Your task to perform on an android device: Clear all items from cart on newegg.com. Image 0: 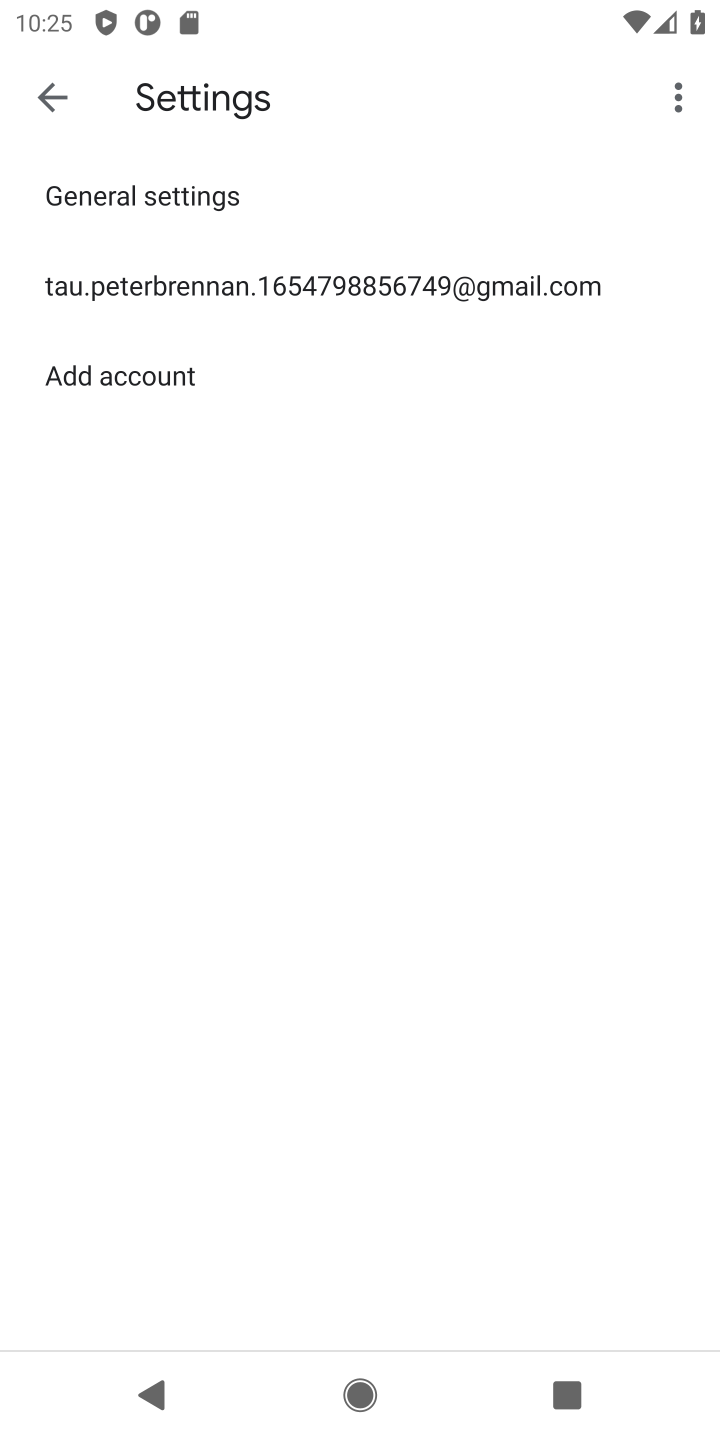
Step 0: press home button
Your task to perform on an android device: Clear all items from cart on newegg.com. Image 1: 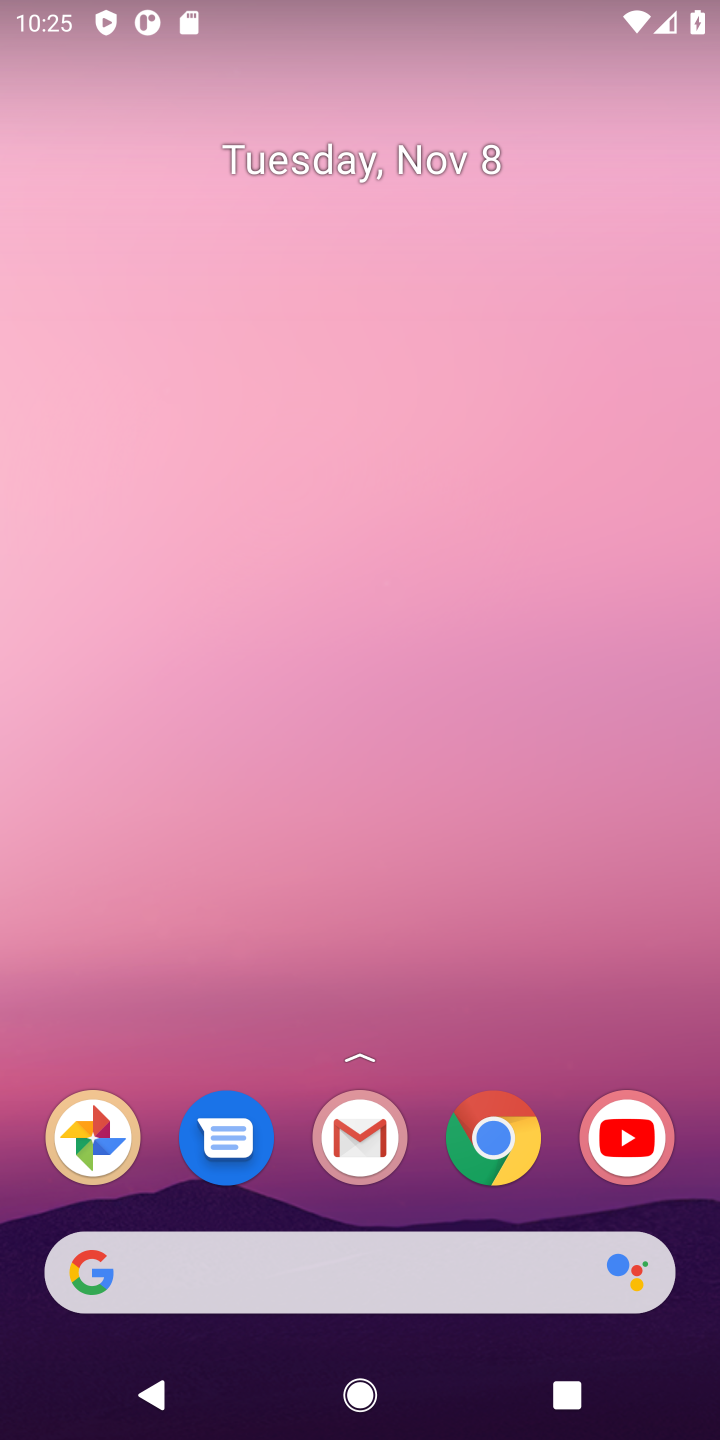
Step 1: click (499, 1123)
Your task to perform on an android device: Clear all items from cart on newegg.com. Image 2: 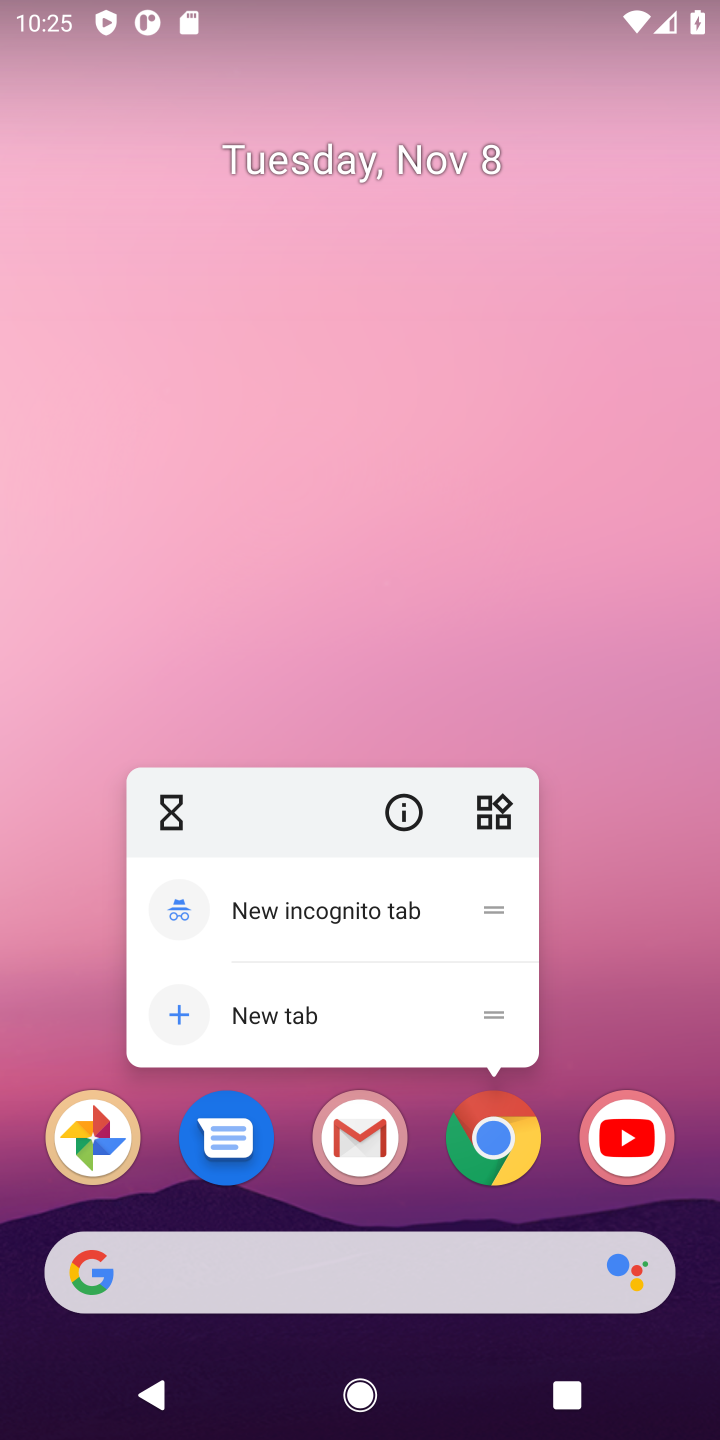
Step 2: click (499, 1143)
Your task to perform on an android device: Clear all items from cart on newegg.com. Image 3: 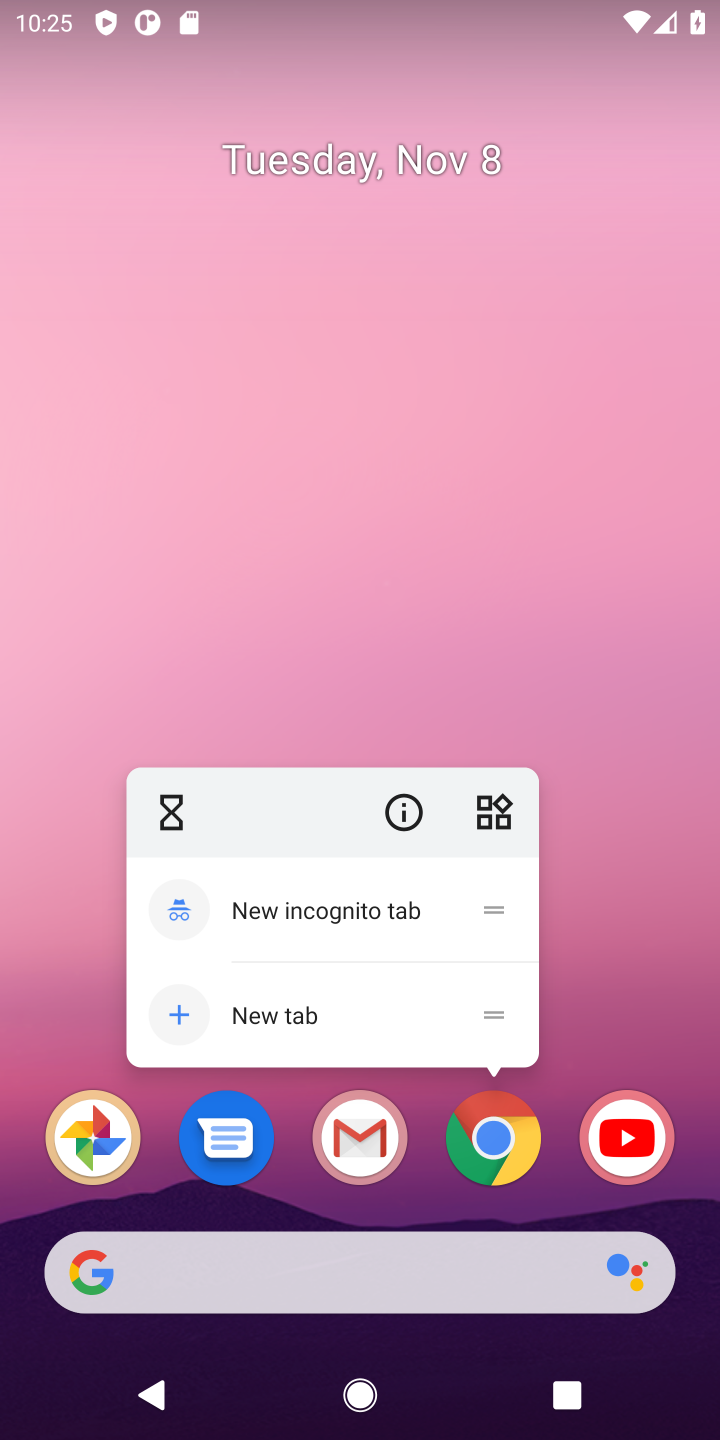
Step 3: click (499, 1145)
Your task to perform on an android device: Clear all items from cart on newegg.com. Image 4: 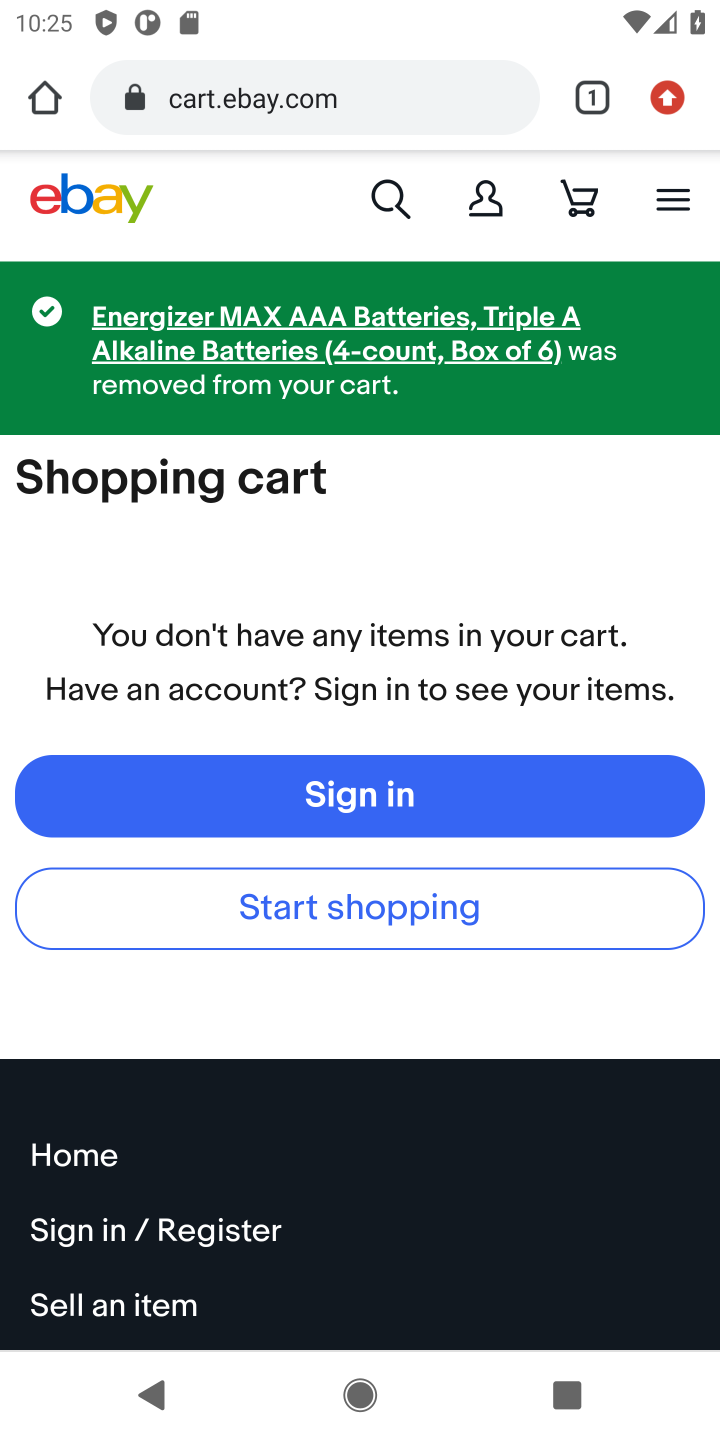
Step 4: click (358, 92)
Your task to perform on an android device: Clear all items from cart on newegg.com. Image 5: 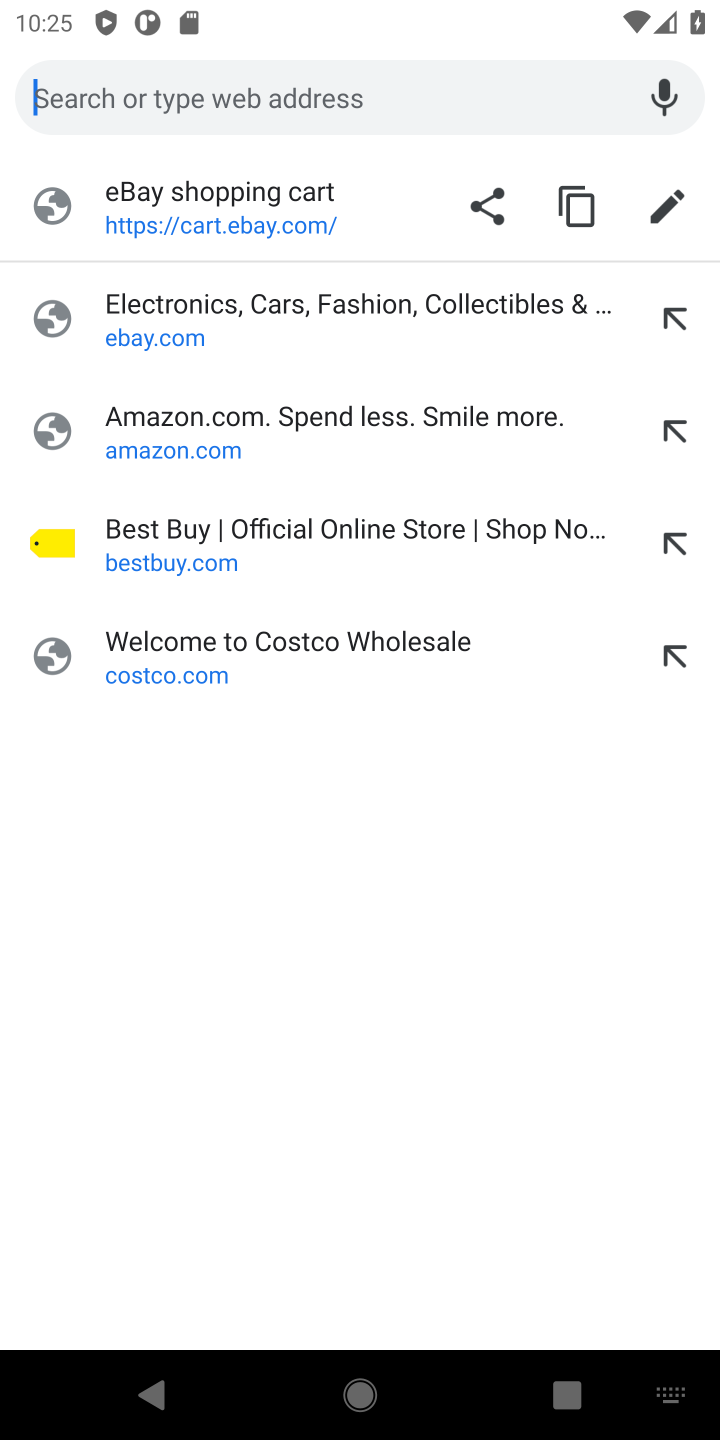
Step 5: type " newegg.com"
Your task to perform on an android device: Clear all items from cart on newegg.com. Image 6: 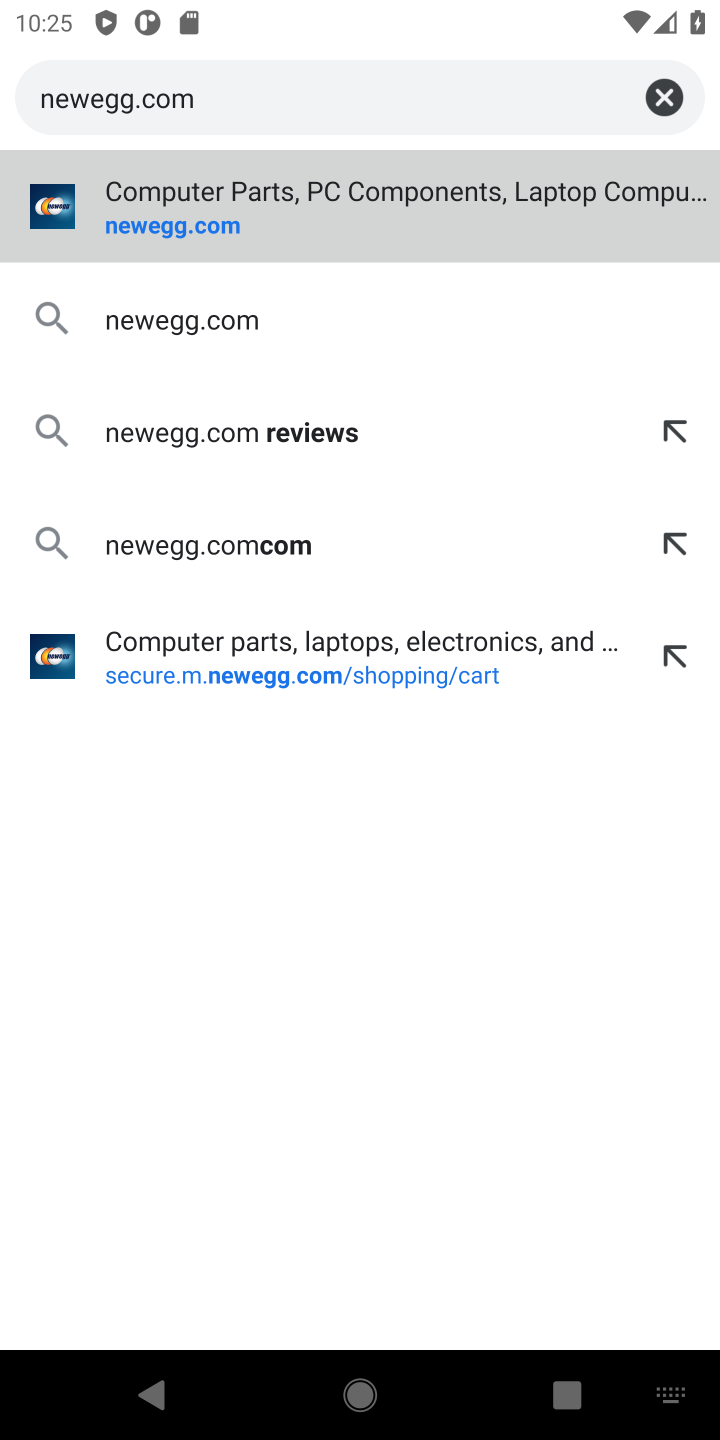
Step 6: press enter
Your task to perform on an android device: Clear all items from cart on newegg.com. Image 7: 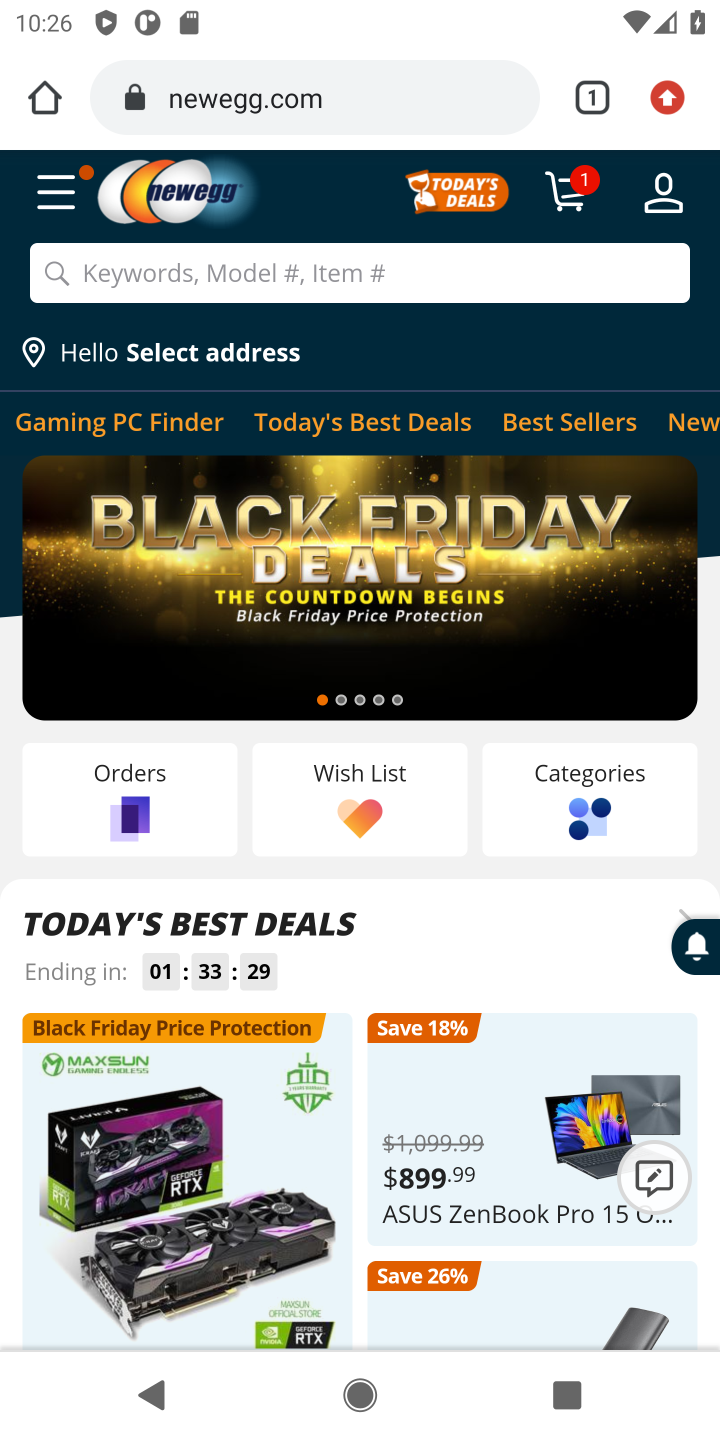
Step 7: click (121, 274)
Your task to perform on an android device: Clear all items from cart on newegg.com. Image 8: 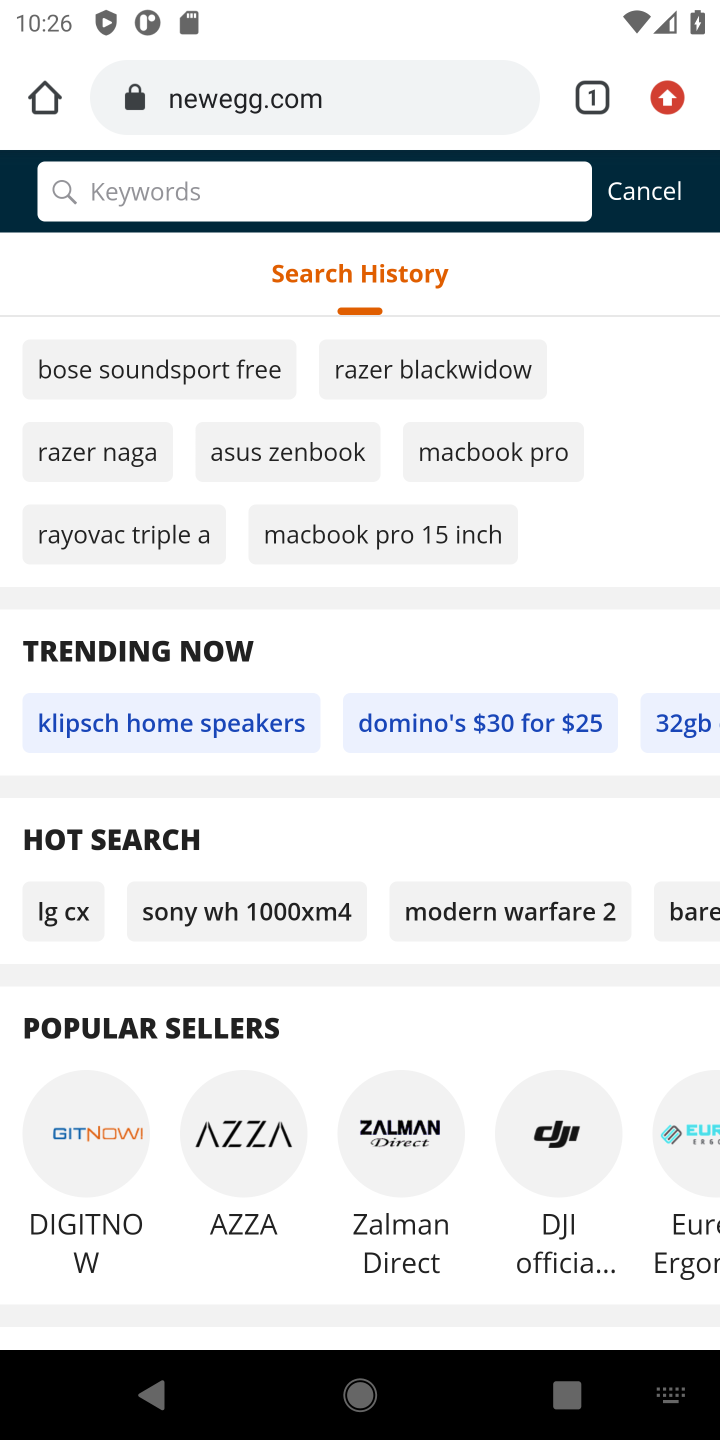
Step 8: click (166, 181)
Your task to perform on an android device: Clear all items from cart on newegg.com. Image 9: 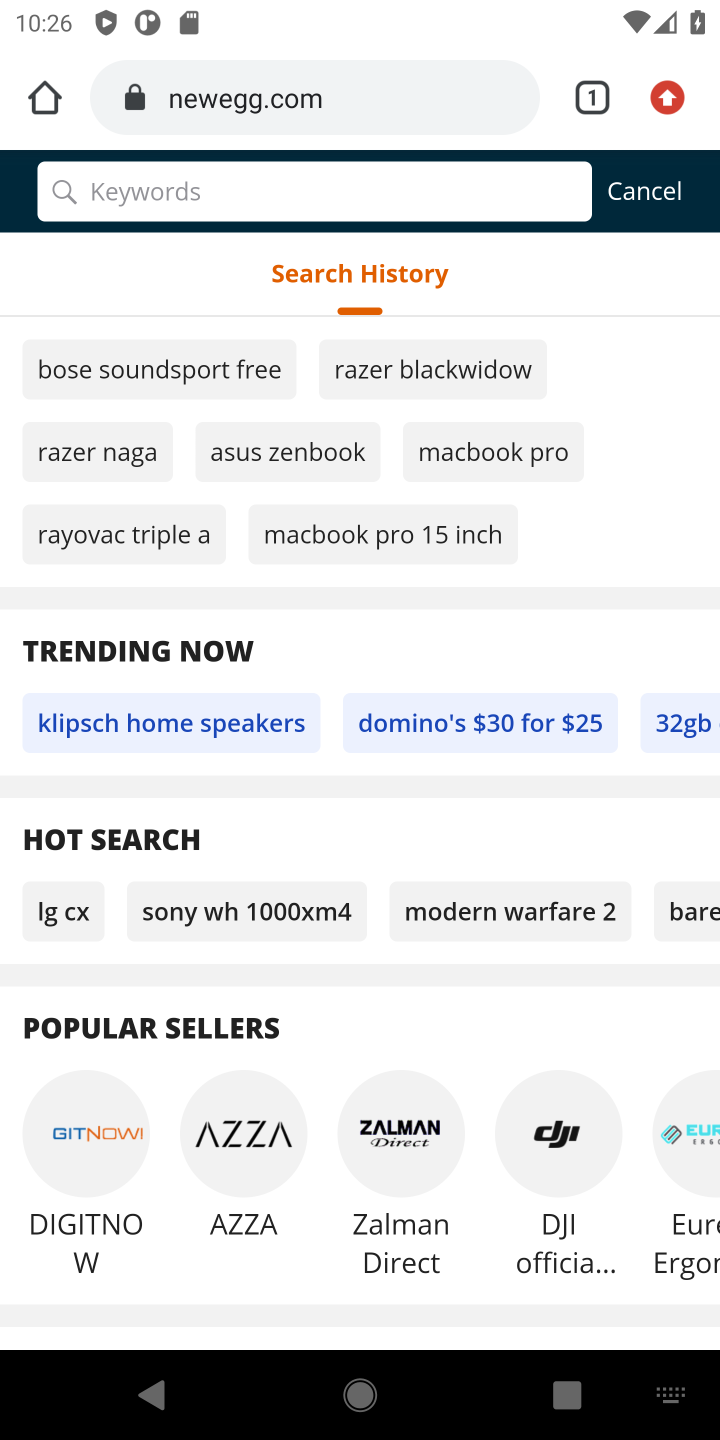
Step 9: click (619, 194)
Your task to perform on an android device: Clear all items from cart on newegg.com. Image 10: 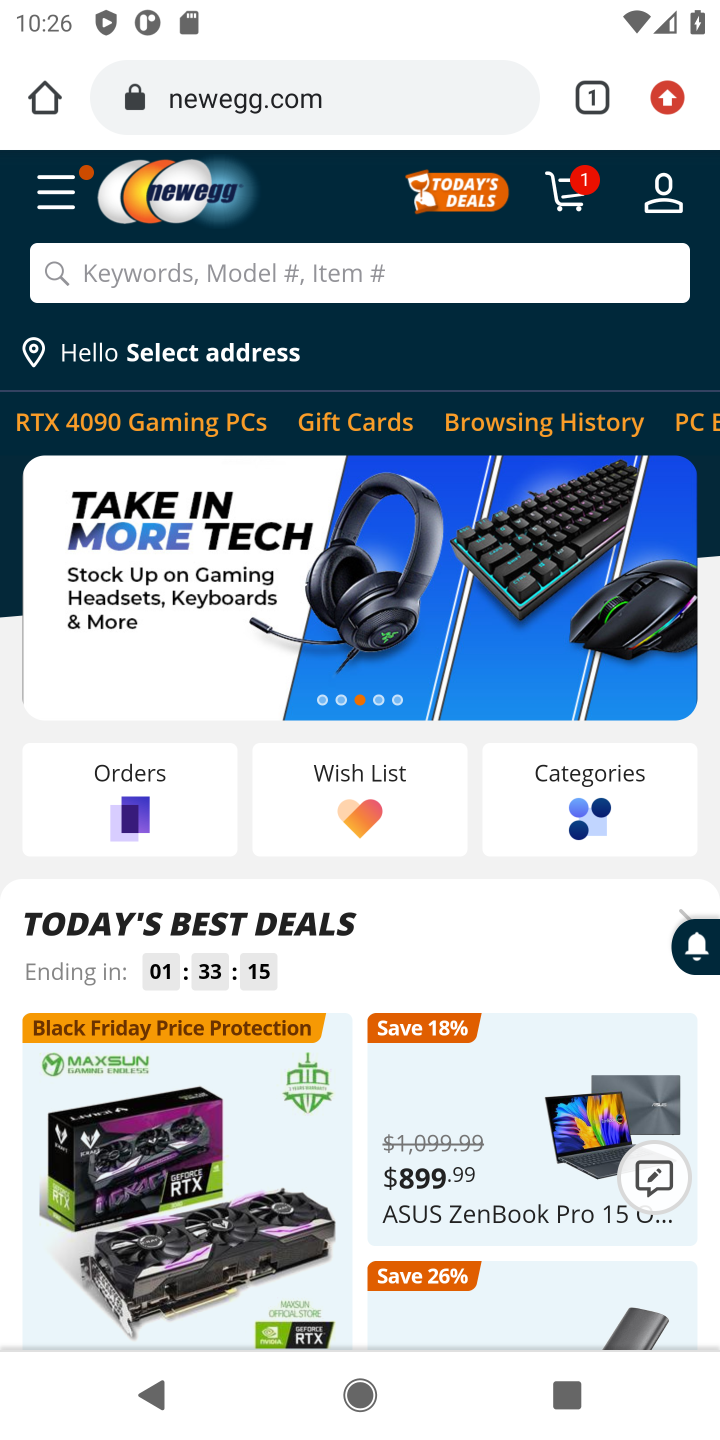
Step 10: click (573, 193)
Your task to perform on an android device: Clear all items from cart on newegg.com. Image 11: 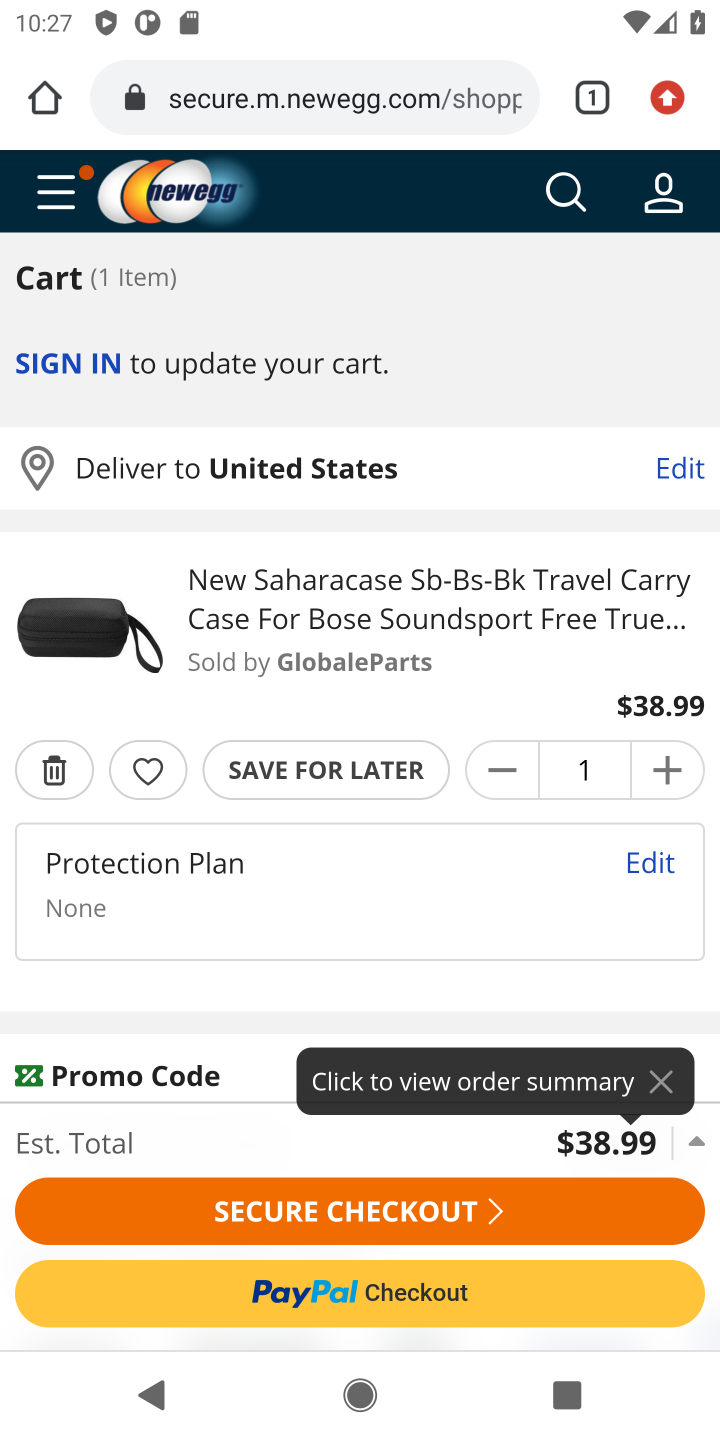
Step 11: click (40, 764)
Your task to perform on an android device: Clear all items from cart on newegg.com. Image 12: 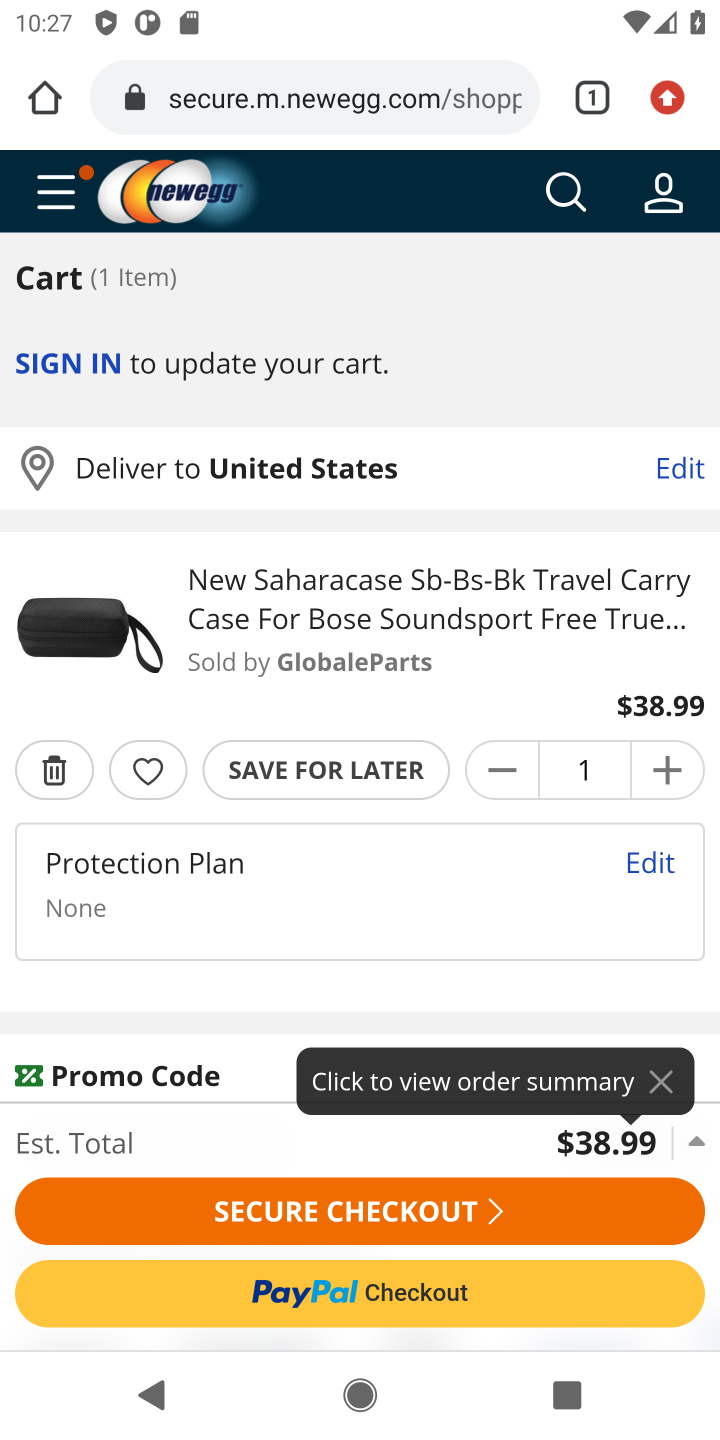
Step 12: click (70, 755)
Your task to perform on an android device: Clear all items from cart on newegg.com. Image 13: 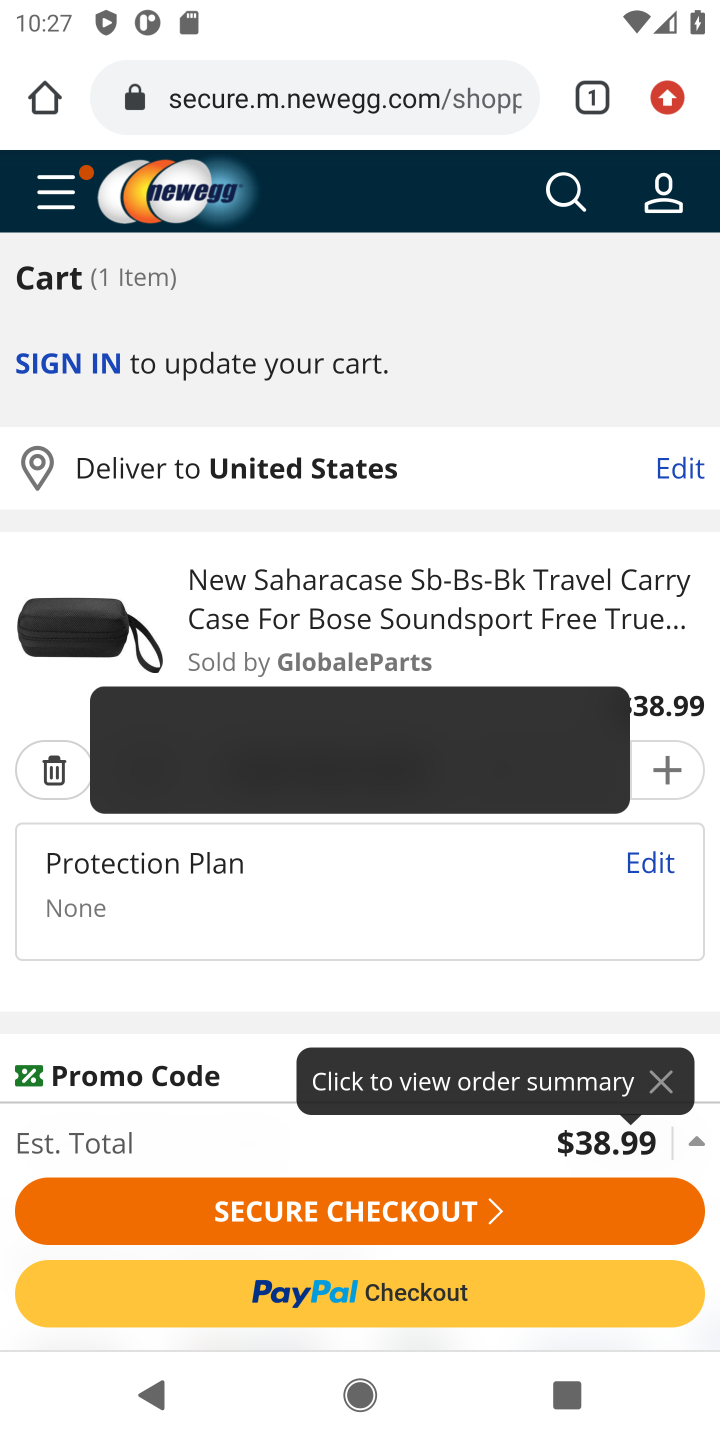
Step 13: click (55, 757)
Your task to perform on an android device: Clear all items from cart on newegg.com. Image 14: 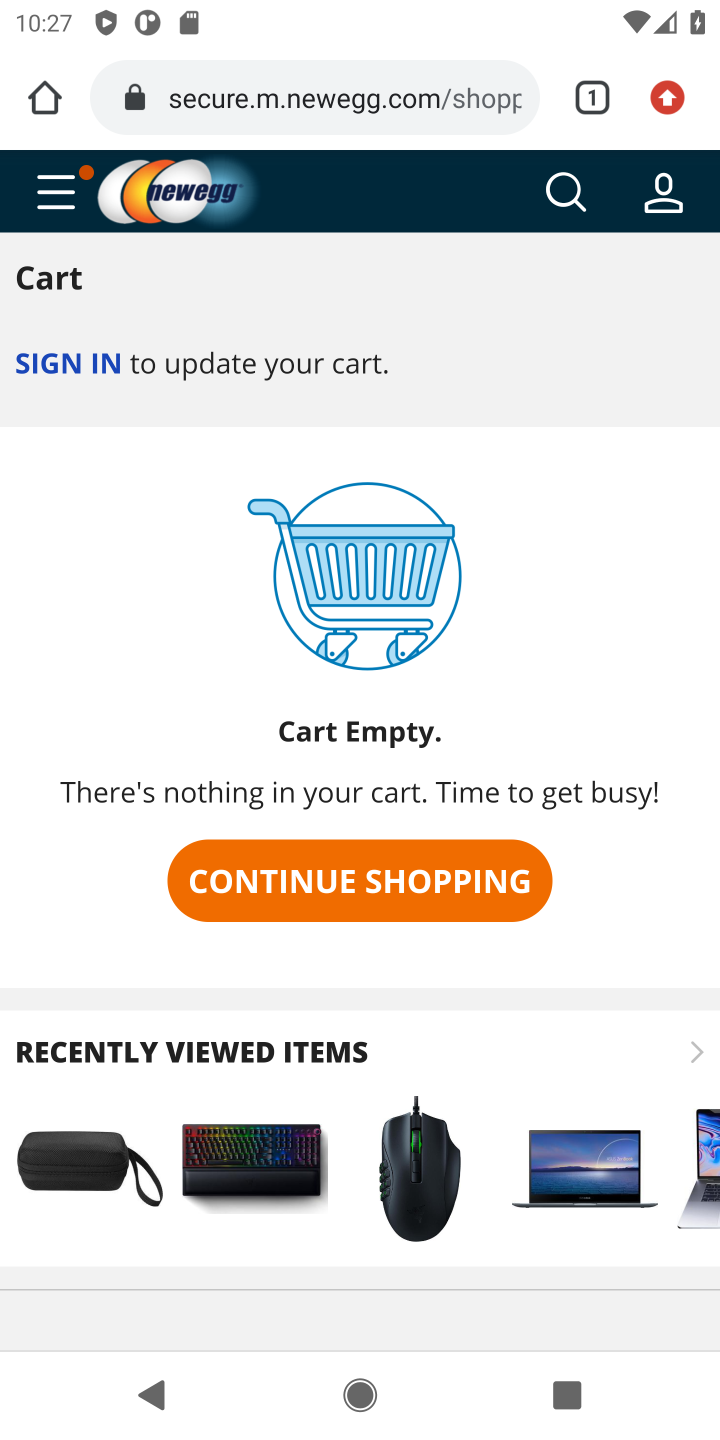
Step 14: task complete